Your task to perform on an android device: toggle sleep mode Image 0: 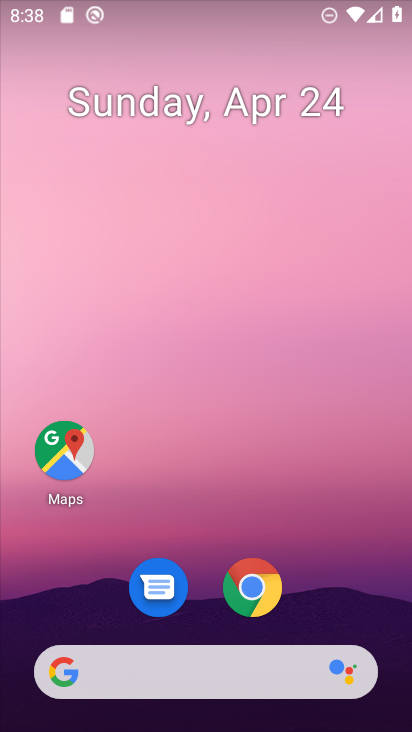
Step 0: drag from (346, 595) to (350, 151)
Your task to perform on an android device: toggle sleep mode Image 1: 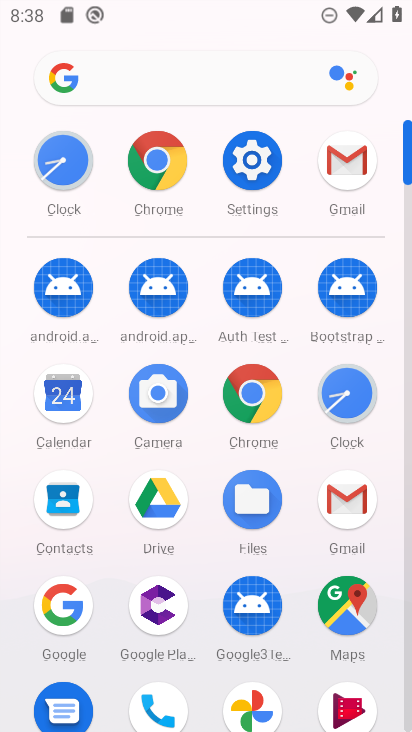
Step 1: click (242, 157)
Your task to perform on an android device: toggle sleep mode Image 2: 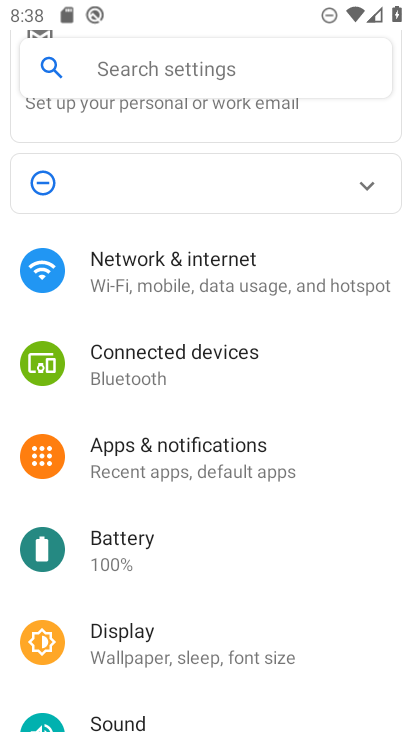
Step 2: click (237, 74)
Your task to perform on an android device: toggle sleep mode Image 3: 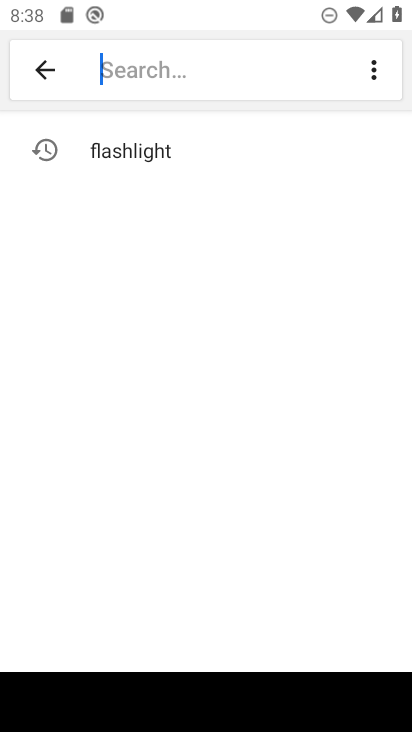
Step 3: type "sleep mode"
Your task to perform on an android device: toggle sleep mode Image 4: 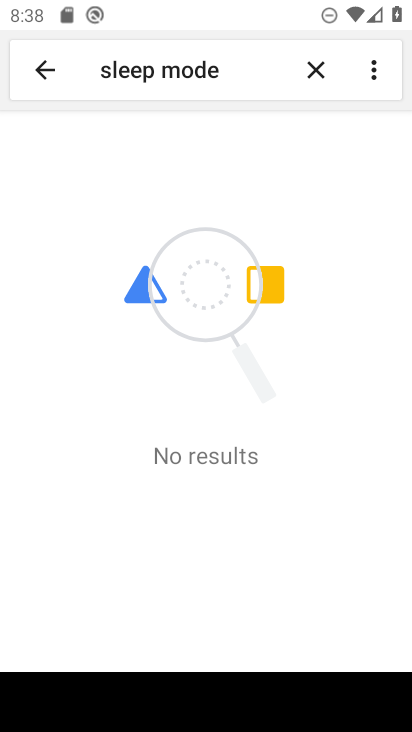
Step 4: task complete